Your task to perform on an android device: Open network settings Image 0: 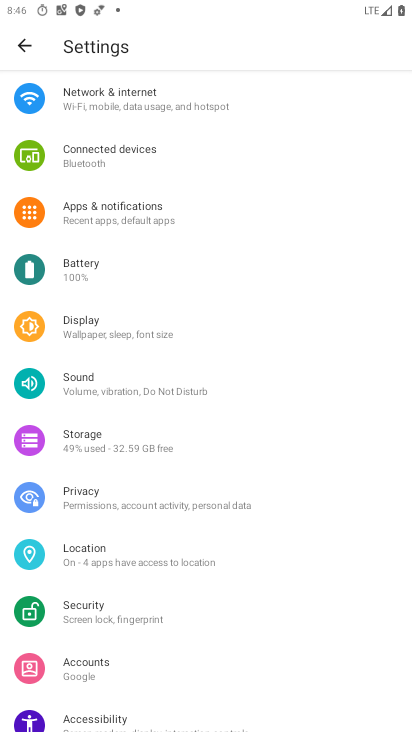
Step 0: click (155, 94)
Your task to perform on an android device: Open network settings Image 1: 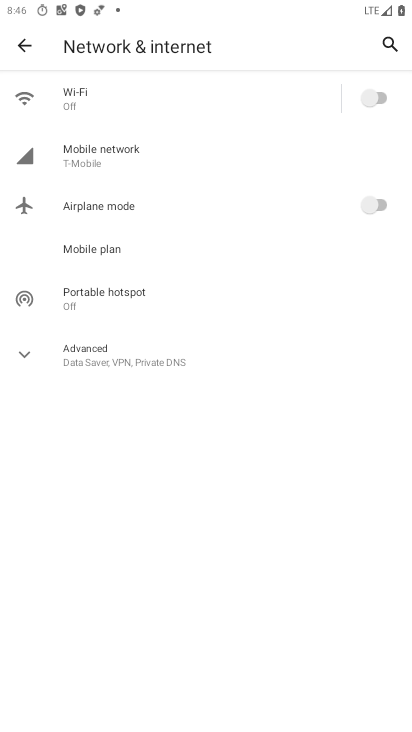
Step 1: task complete